Your task to perform on an android device: Do I have any events today? Image 0: 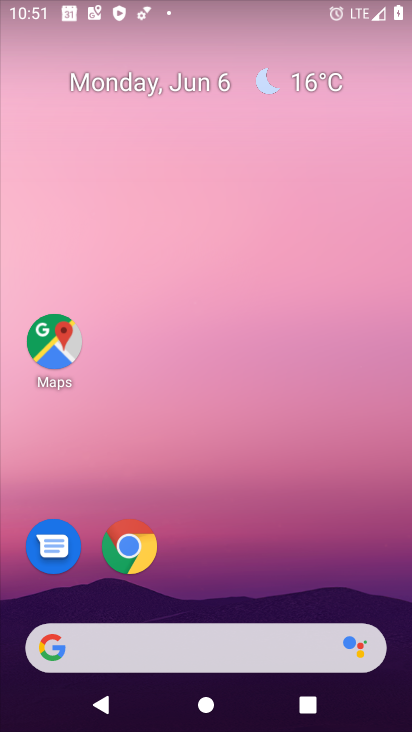
Step 0: drag from (232, 599) to (340, 60)
Your task to perform on an android device: Do I have any events today? Image 1: 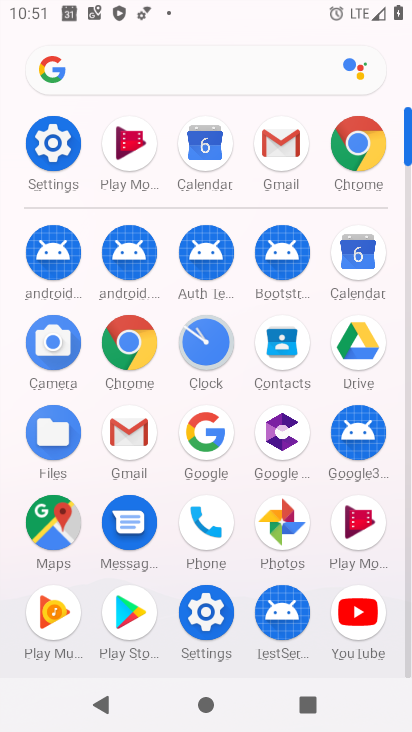
Step 1: click (366, 262)
Your task to perform on an android device: Do I have any events today? Image 2: 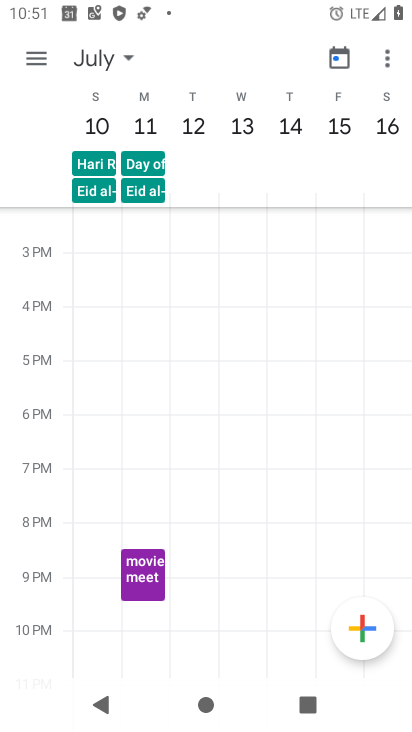
Step 2: click (93, 51)
Your task to perform on an android device: Do I have any events today? Image 3: 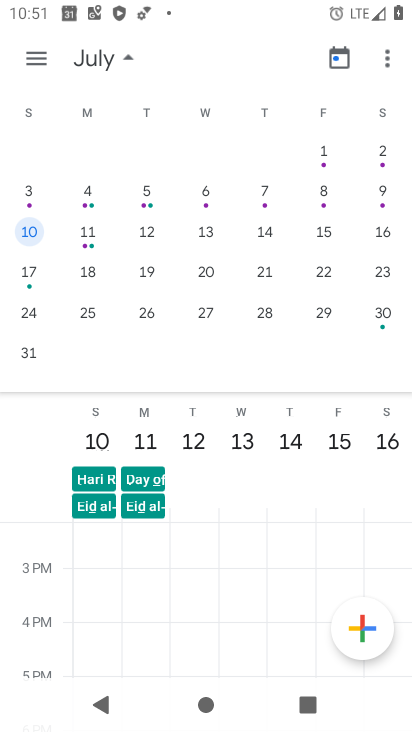
Step 3: drag from (50, 200) to (403, 194)
Your task to perform on an android device: Do I have any events today? Image 4: 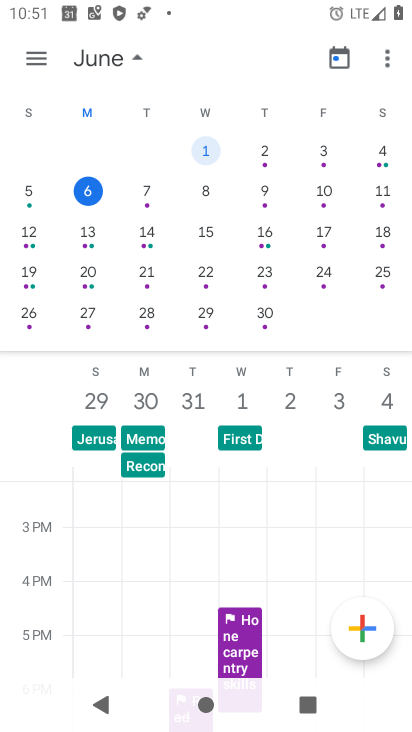
Step 4: click (26, 54)
Your task to perform on an android device: Do I have any events today? Image 5: 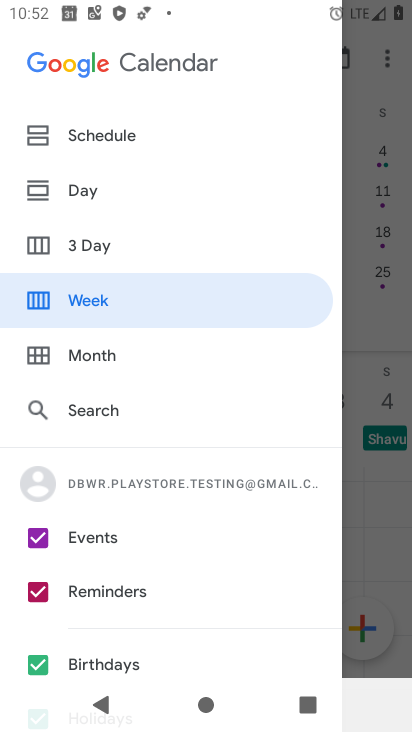
Step 5: click (60, 182)
Your task to perform on an android device: Do I have any events today? Image 6: 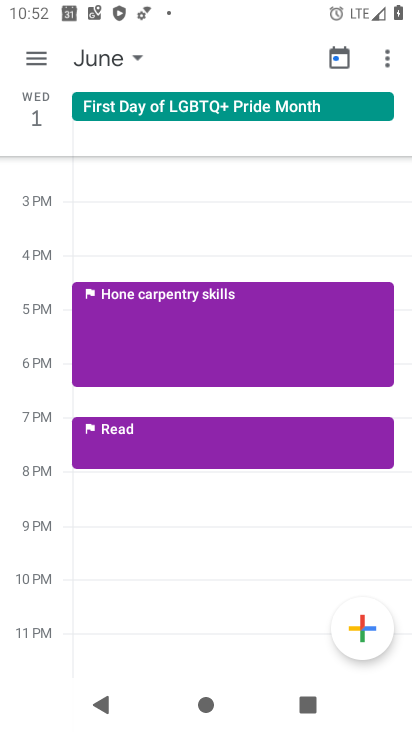
Step 6: click (37, 55)
Your task to perform on an android device: Do I have any events today? Image 7: 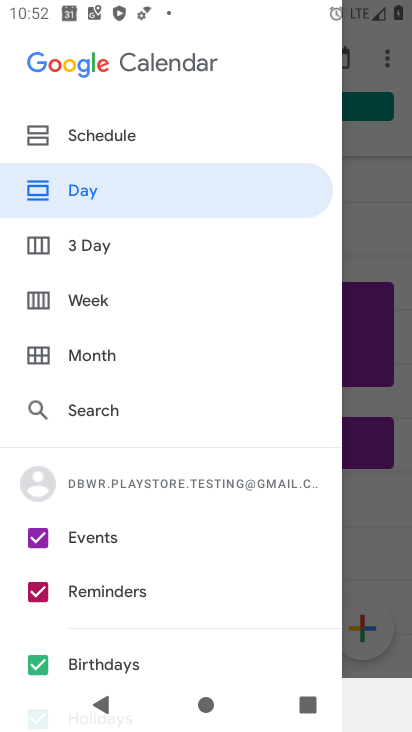
Step 7: click (101, 596)
Your task to perform on an android device: Do I have any events today? Image 8: 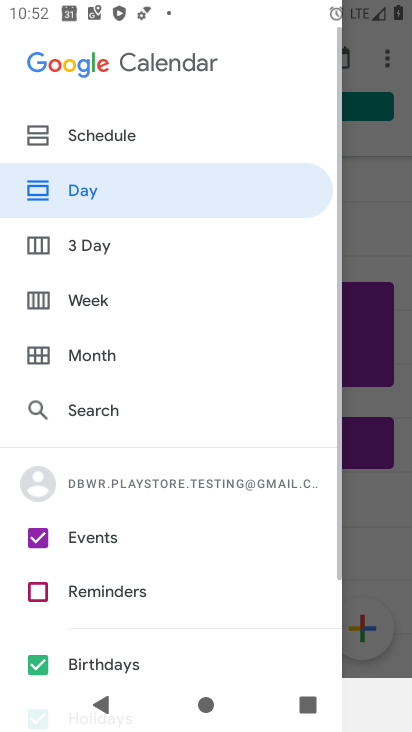
Step 8: click (95, 657)
Your task to perform on an android device: Do I have any events today? Image 9: 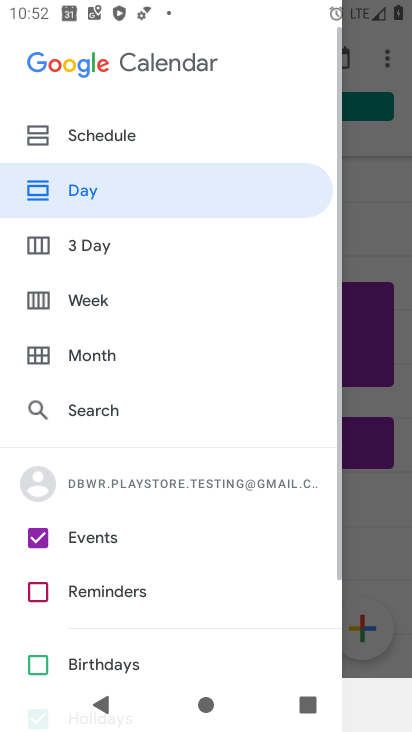
Step 9: drag from (98, 656) to (144, 444)
Your task to perform on an android device: Do I have any events today? Image 10: 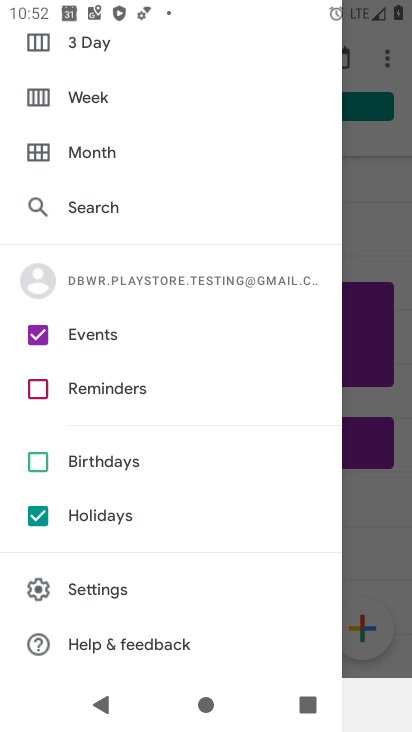
Step 10: click (123, 515)
Your task to perform on an android device: Do I have any events today? Image 11: 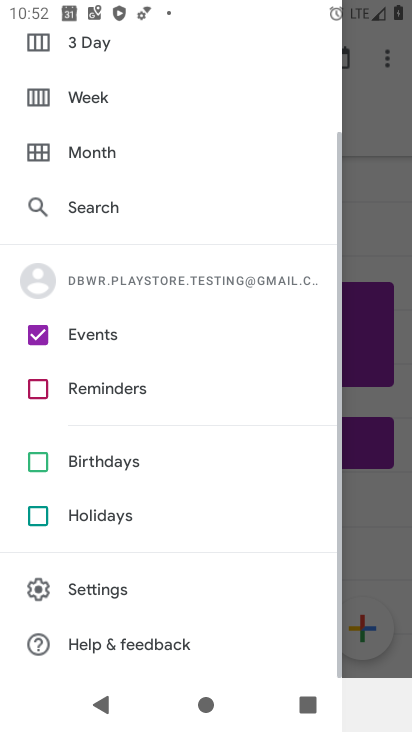
Step 11: drag from (156, 166) to (139, 637)
Your task to perform on an android device: Do I have any events today? Image 12: 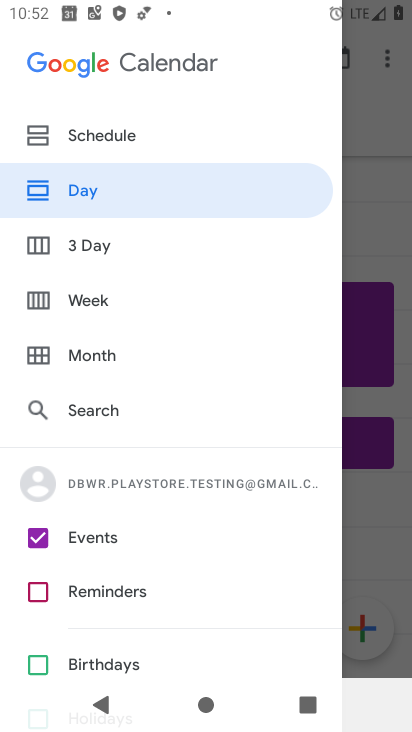
Step 12: click (92, 194)
Your task to perform on an android device: Do I have any events today? Image 13: 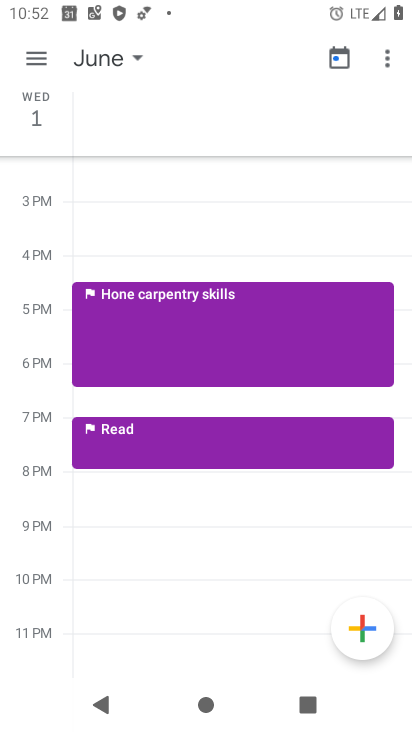
Step 13: task complete